Your task to perform on an android device: check storage Image 0: 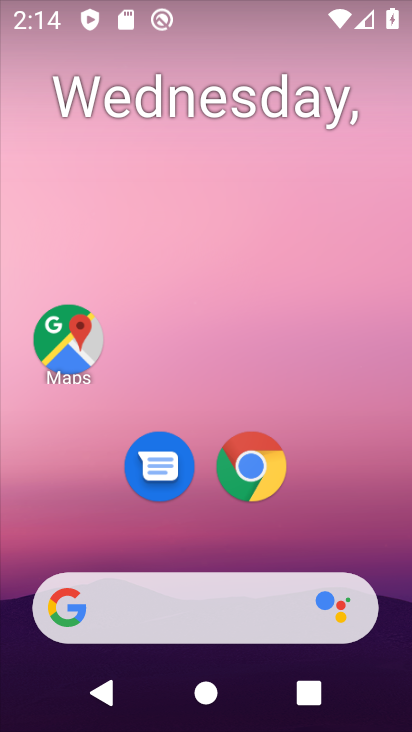
Step 0: drag from (334, 455) to (153, 12)
Your task to perform on an android device: check storage Image 1: 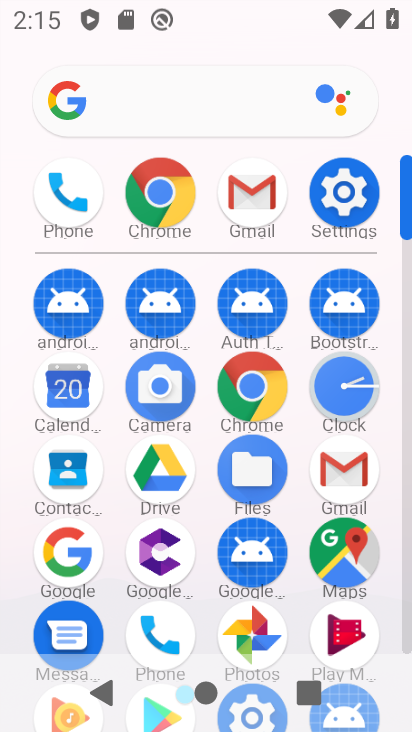
Step 1: drag from (4, 537) to (0, 174)
Your task to perform on an android device: check storage Image 2: 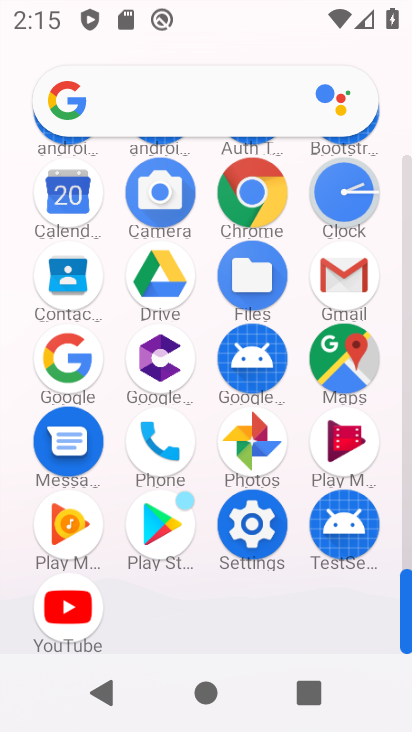
Step 2: click (252, 521)
Your task to perform on an android device: check storage Image 3: 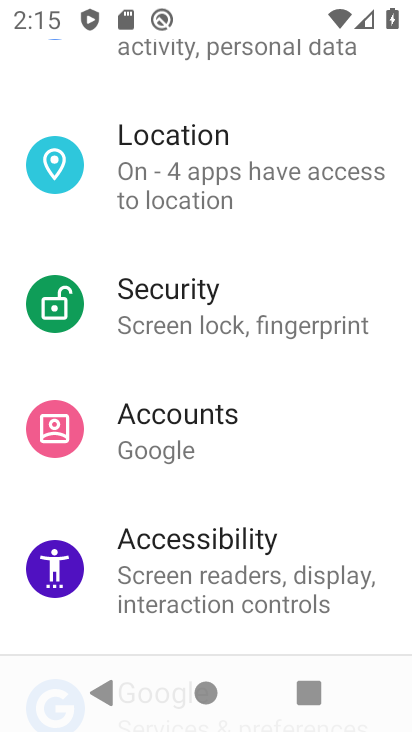
Step 3: drag from (352, 522) to (306, 76)
Your task to perform on an android device: check storage Image 4: 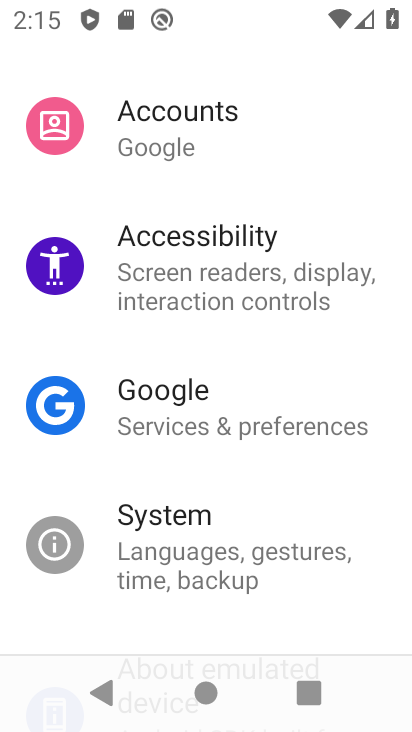
Step 4: drag from (355, 166) to (346, 85)
Your task to perform on an android device: check storage Image 5: 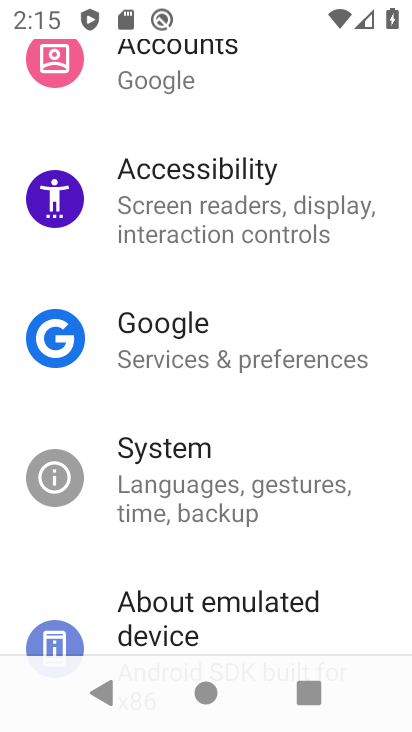
Step 5: drag from (336, 408) to (334, 117)
Your task to perform on an android device: check storage Image 6: 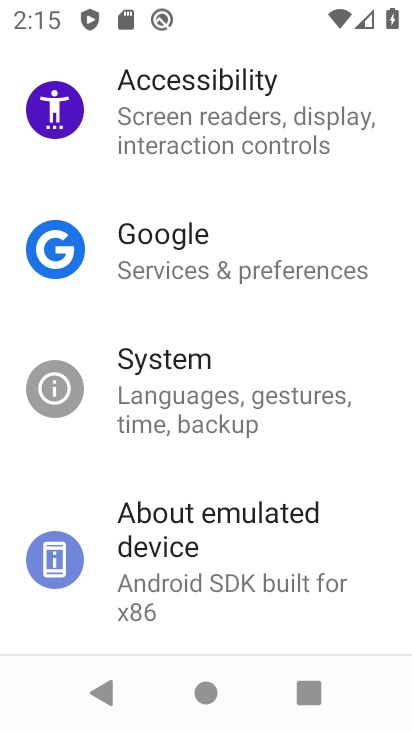
Step 6: drag from (301, 541) to (309, 139)
Your task to perform on an android device: check storage Image 7: 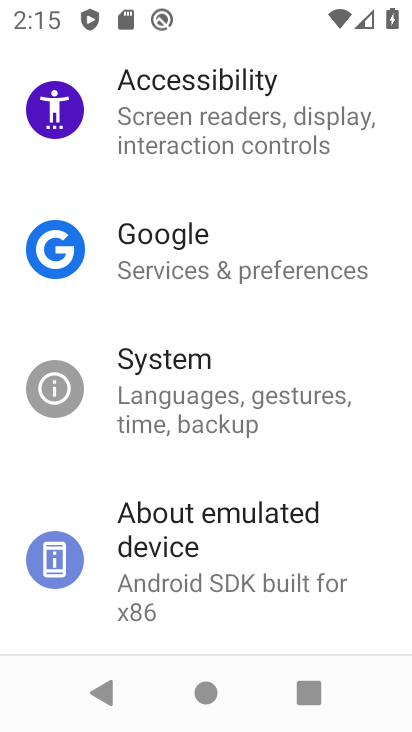
Step 7: drag from (309, 189) to (299, 544)
Your task to perform on an android device: check storage Image 8: 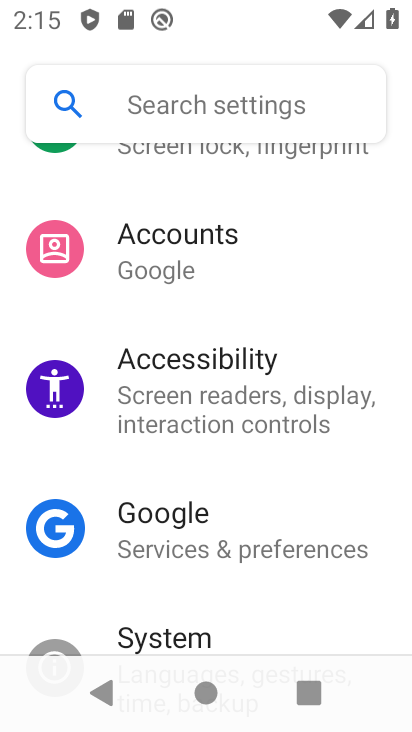
Step 8: drag from (294, 209) to (304, 528)
Your task to perform on an android device: check storage Image 9: 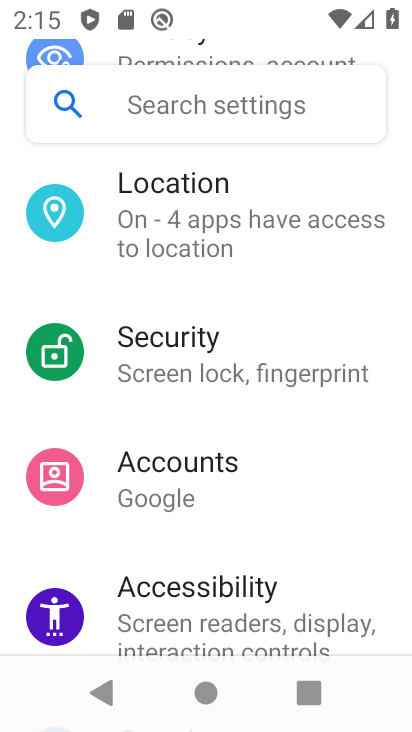
Step 9: drag from (301, 318) to (302, 581)
Your task to perform on an android device: check storage Image 10: 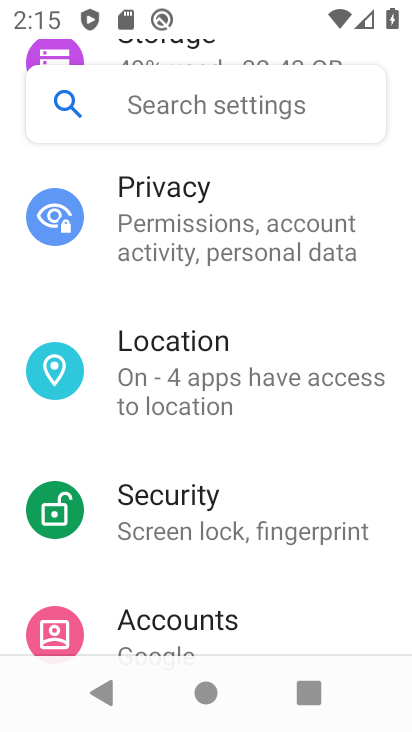
Step 10: drag from (295, 274) to (300, 534)
Your task to perform on an android device: check storage Image 11: 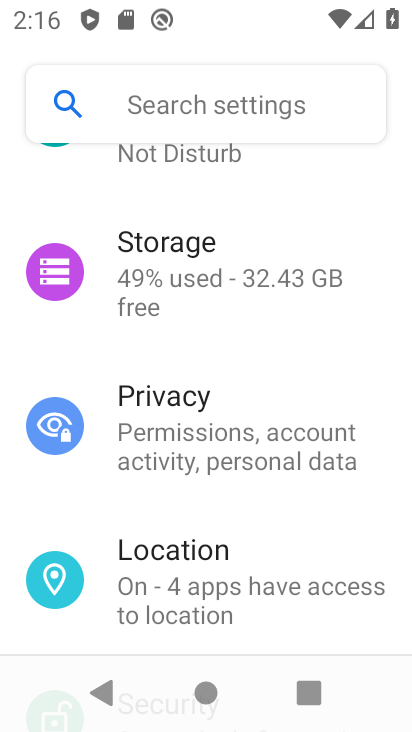
Step 11: click (225, 262)
Your task to perform on an android device: check storage Image 12: 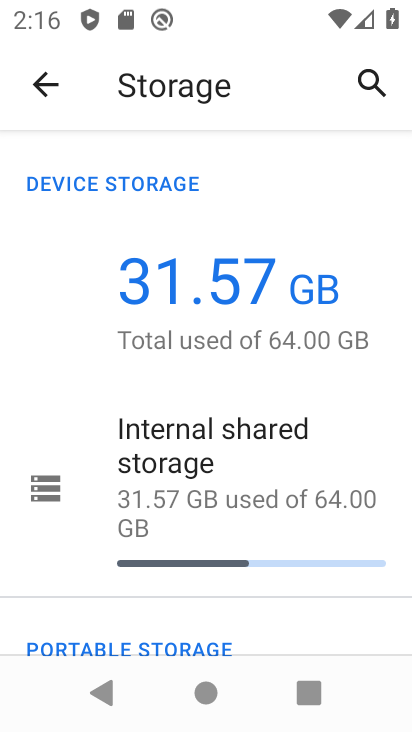
Step 12: task complete